Your task to perform on an android device: toggle javascript in the chrome app Image 0: 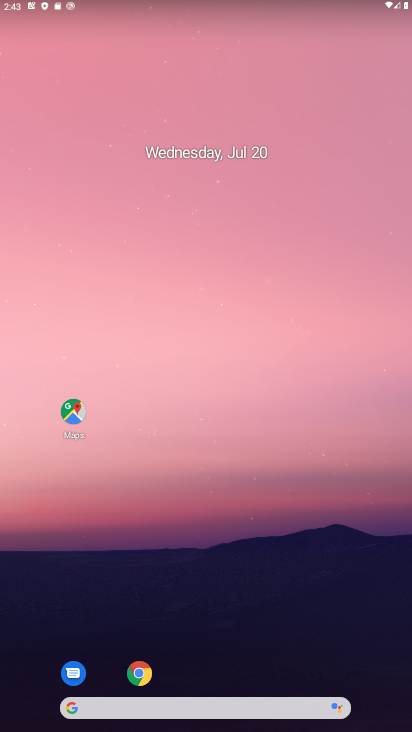
Step 0: click (146, 667)
Your task to perform on an android device: toggle javascript in the chrome app Image 1: 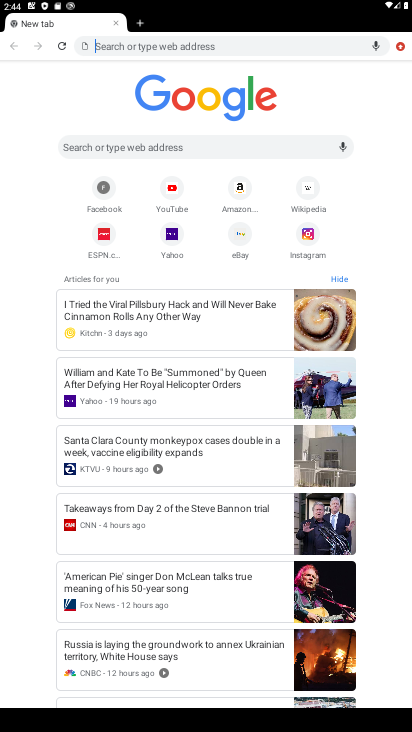
Step 1: click (404, 47)
Your task to perform on an android device: toggle javascript in the chrome app Image 2: 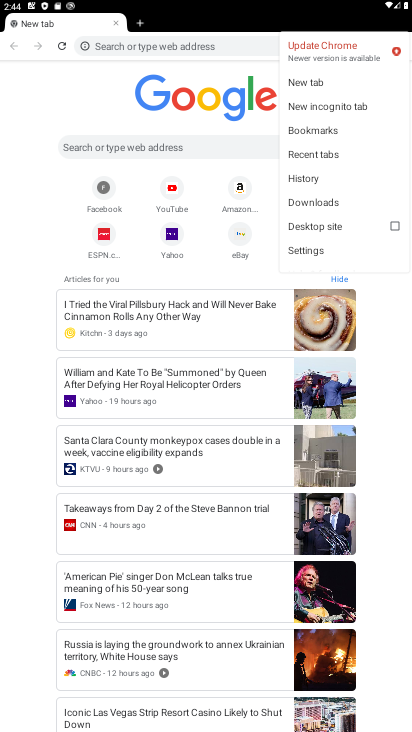
Step 2: click (309, 246)
Your task to perform on an android device: toggle javascript in the chrome app Image 3: 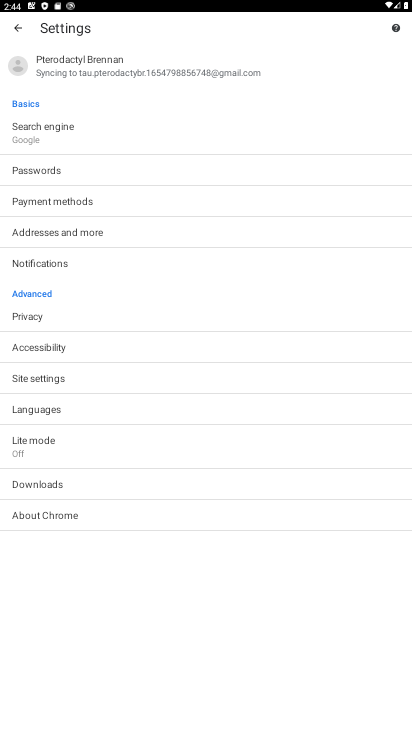
Step 3: click (64, 382)
Your task to perform on an android device: toggle javascript in the chrome app Image 4: 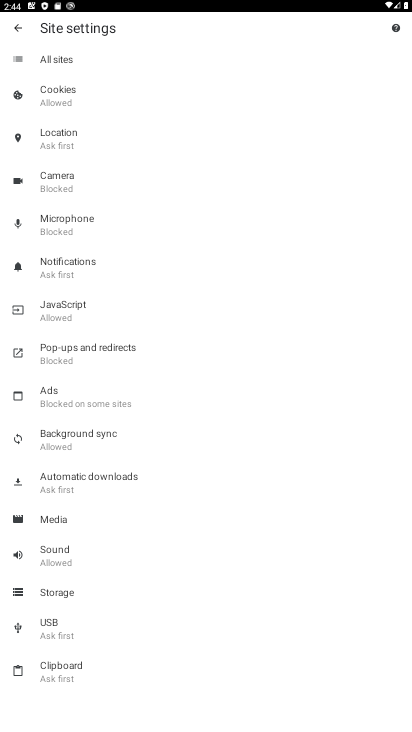
Step 4: click (79, 312)
Your task to perform on an android device: toggle javascript in the chrome app Image 5: 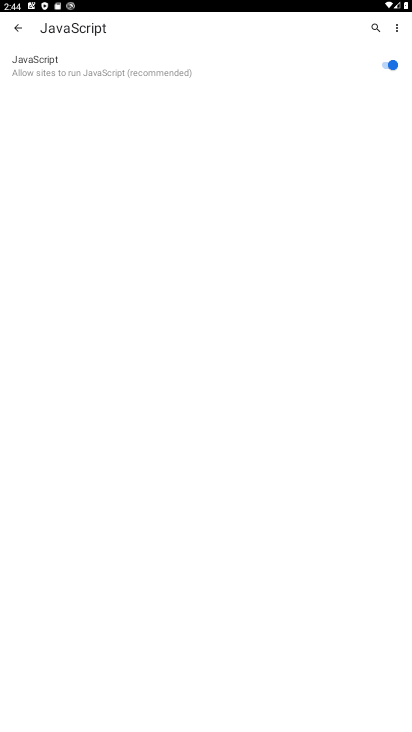
Step 5: click (392, 64)
Your task to perform on an android device: toggle javascript in the chrome app Image 6: 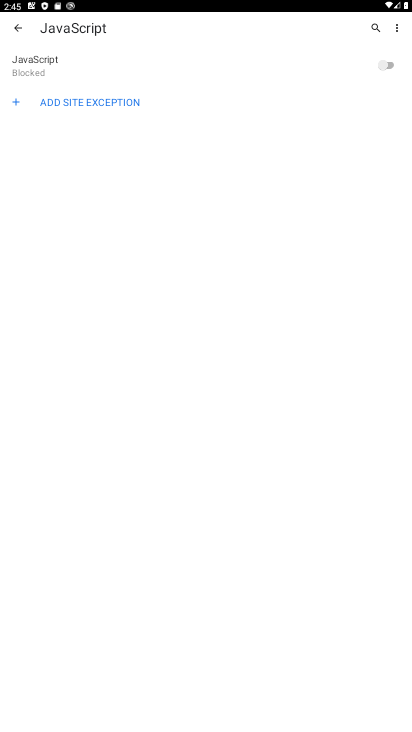
Step 6: task complete